Your task to perform on an android device: Search for top rated sushi restaurant Image 0: 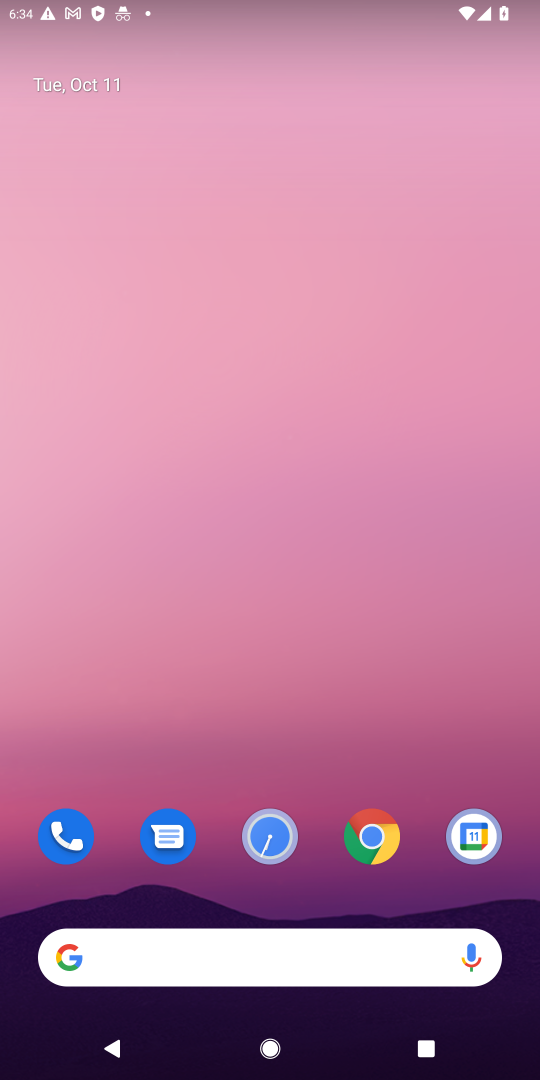
Step 0: click (373, 841)
Your task to perform on an android device: Search for top rated sushi restaurant Image 1: 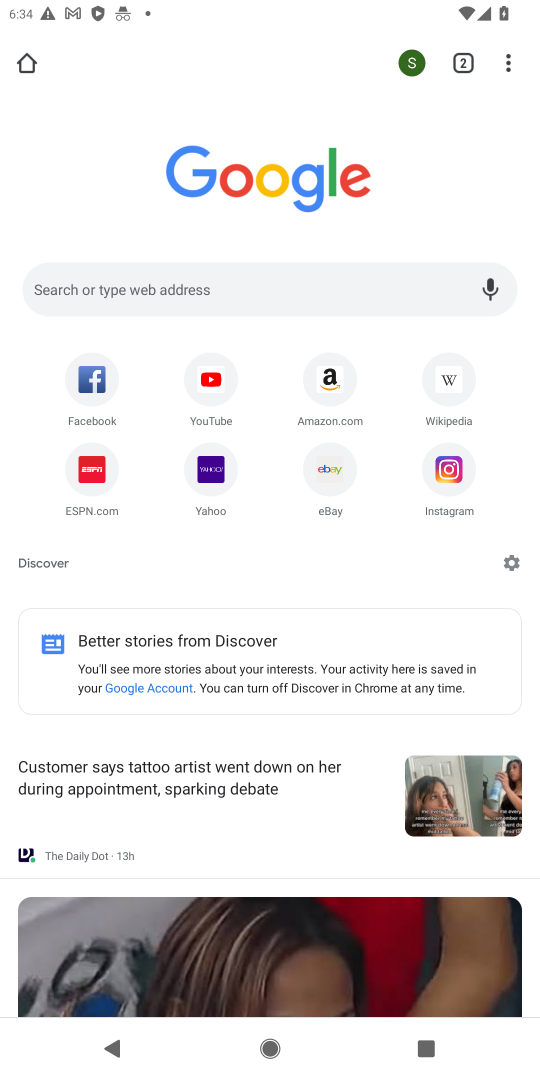
Step 1: click (154, 281)
Your task to perform on an android device: Search for top rated sushi restaurant Image 2: 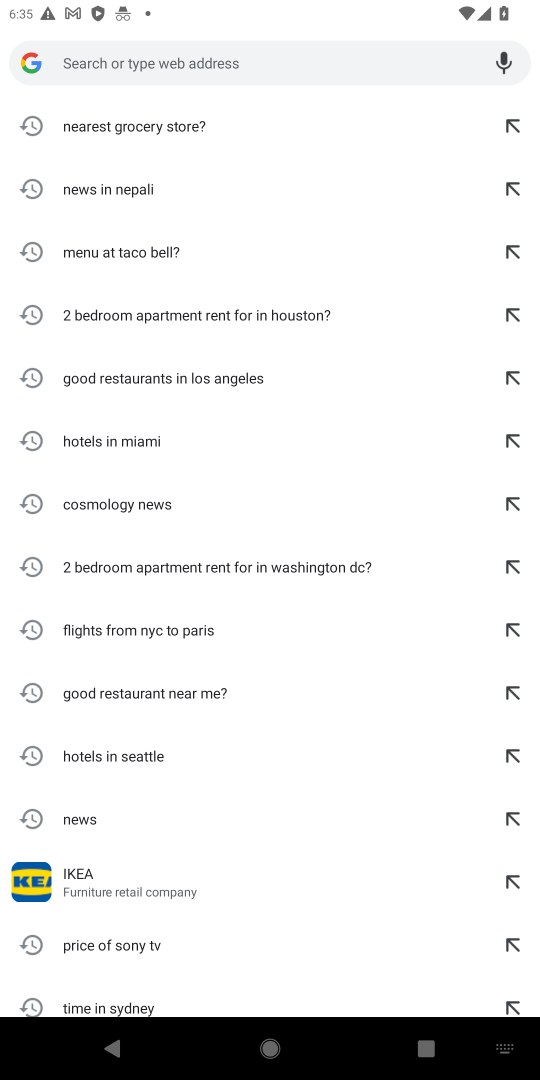
Step 2: type "top rated sushi restaurant"
Your task to perform on an android device: Search for top rated sushi restaurant Image 3: 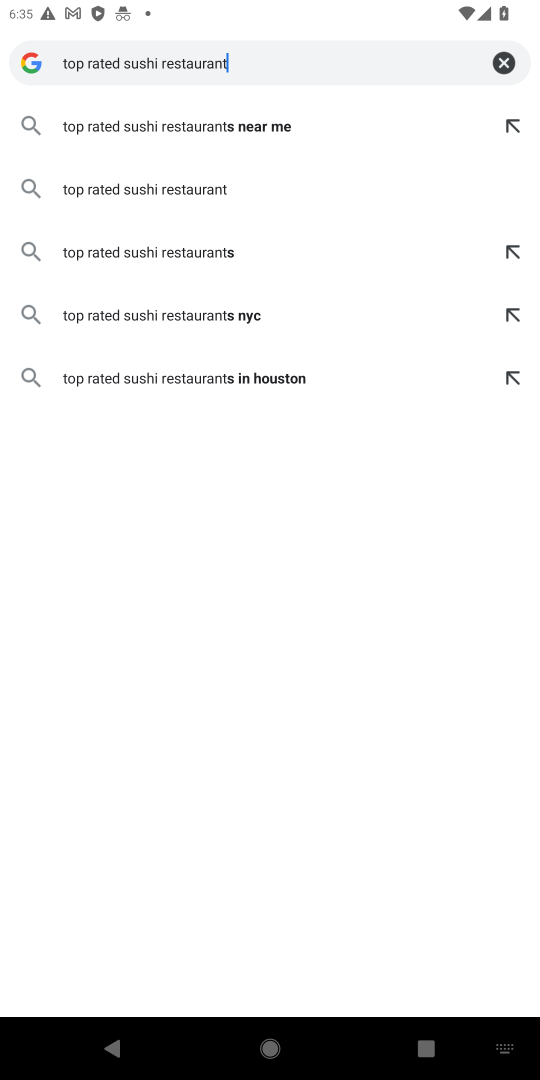
Step 3: click (139, 186)
Your task to perform on an android device: Search for top rated sushi restaurant Image 4: 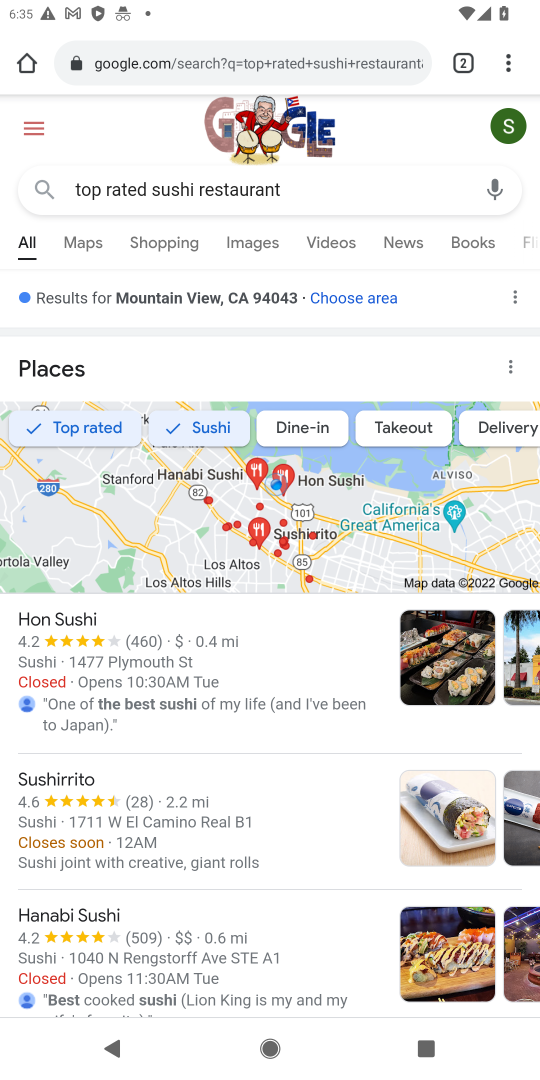
Step 4: task complete